Your task to perform on an android device: toggle notification dots Image 0: 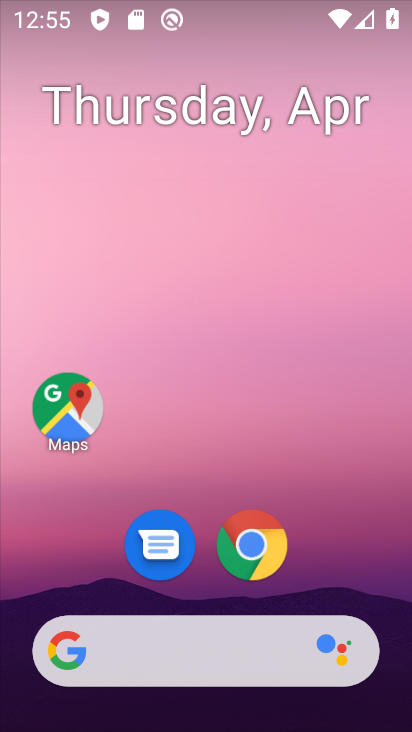
Step 0: drag from (189, 641) to (310, 186)
Your task to perform on an android device: toggle notification dots Image 1: 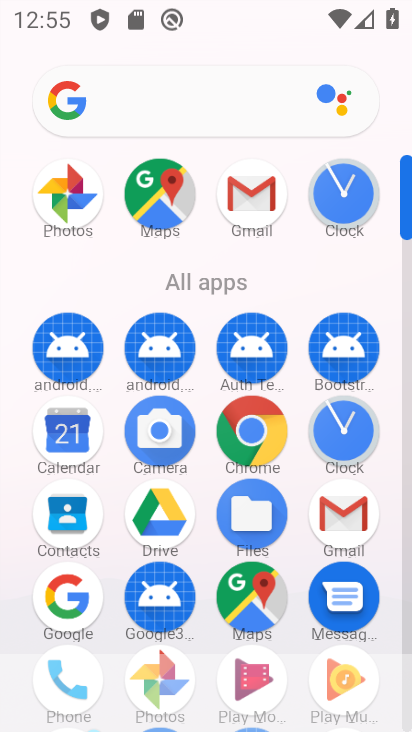
Step 1: drag from (204, 518) to (361, 151)
Your task to perform on an android device: toggle notification dots Image 2: 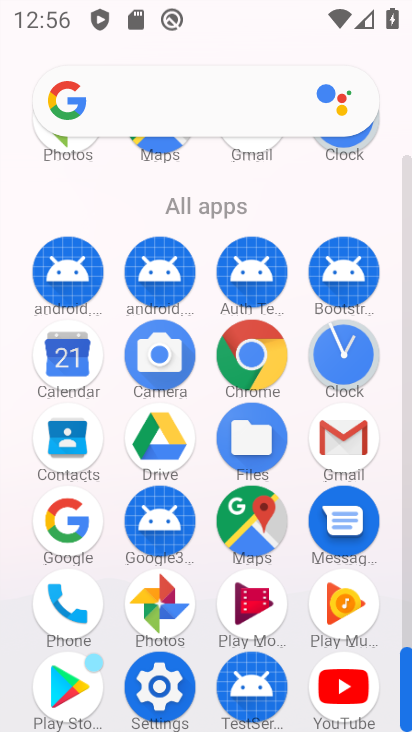
Step 2: click (157, 688)
Your task to perform on an android device: toggle notification dots Image 3: 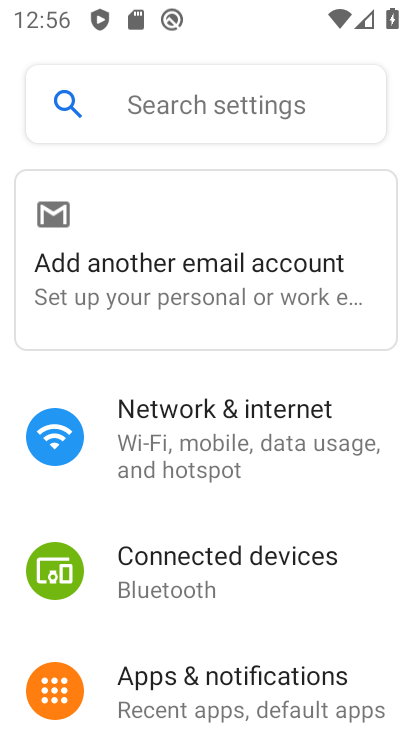
Step 3: click (190, 686)
Your task to perform on an android device: toggle notification dots Image 4: 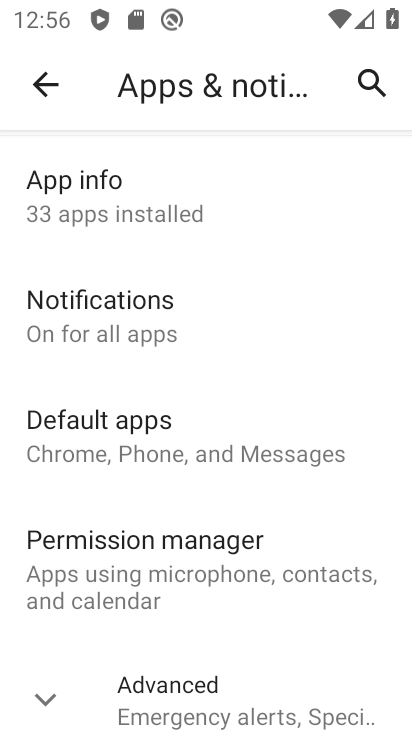
Step 4: click (118, 313)
Your task to perform on an android device: toggle notification dots Image 5: 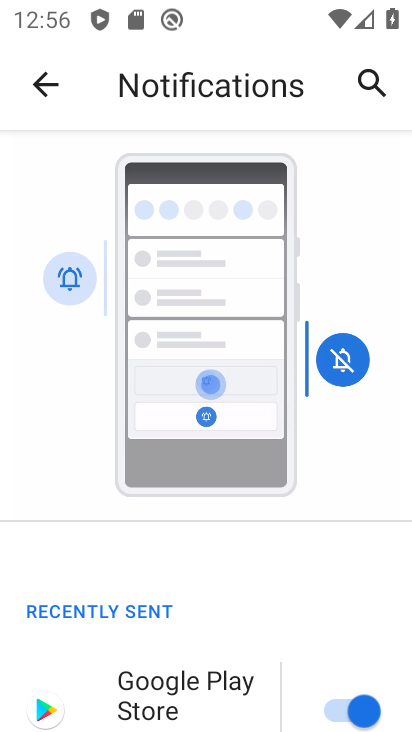
Step 5: drag from (229, 589) to (341, 128)
Your task to perform on an android device: toggle notification dots Image 6: 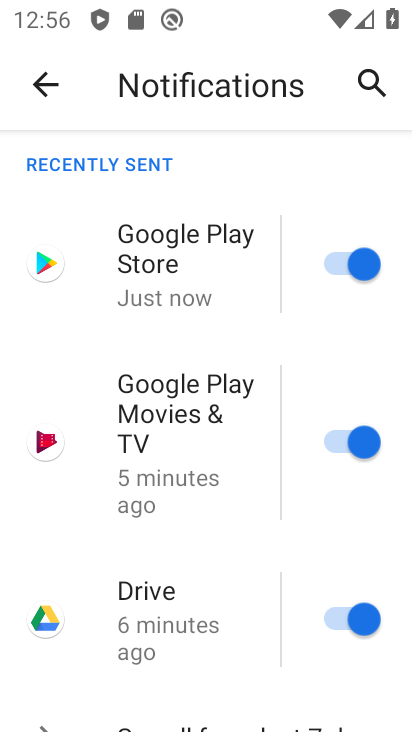
Step 6: drag from (194, 624) to (388, 100)
Your task to perform on an android device: toggle notification dots Image 7: 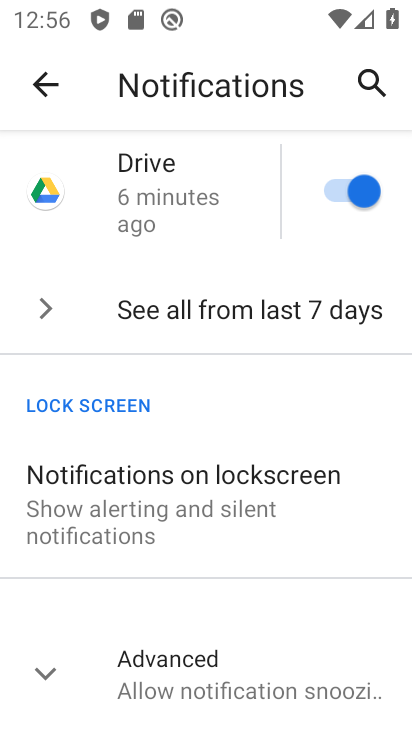
Step 7: click (175, 656)
Your task to perform on an android device: toggle notification dots Image 8: 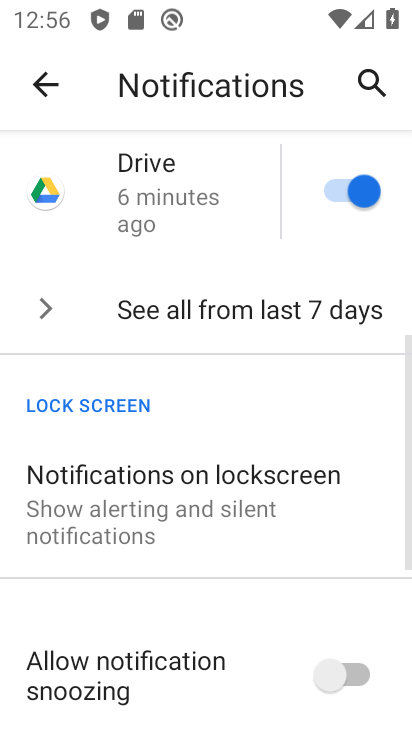
Step 8: drag from (219, 617) to (354, 195)
Your task to perform on an android device: toggle notification dots Image 9: 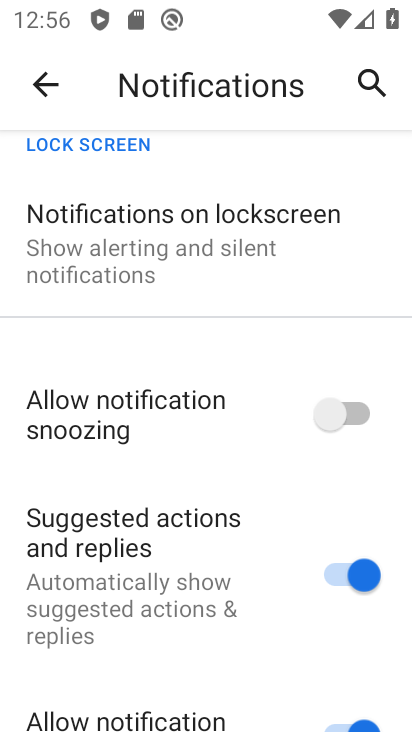
Step 9: drag from (209, 595) to (326, 279)
Your task to perform on an android device: toggle notification dots Image 10: 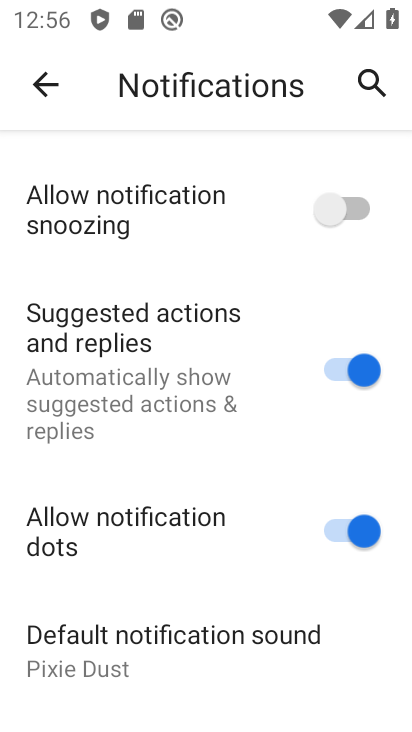
Step 10: click (334, 555)
Your task to perform on an android device: toggle notification dots Image 11: 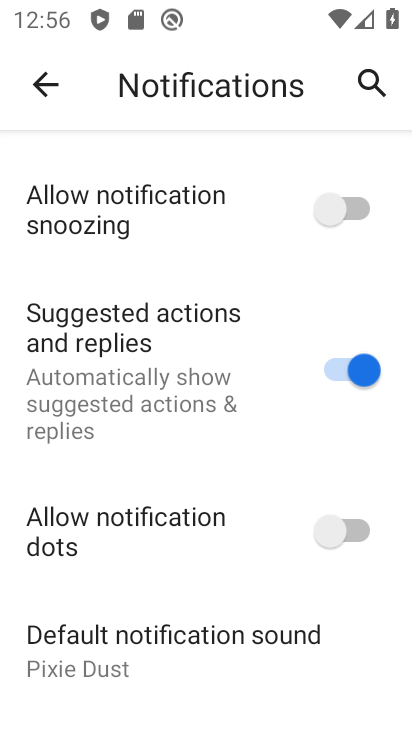
Step 11: task complete